Your task to perform on an android device: Go to settings Image 0: 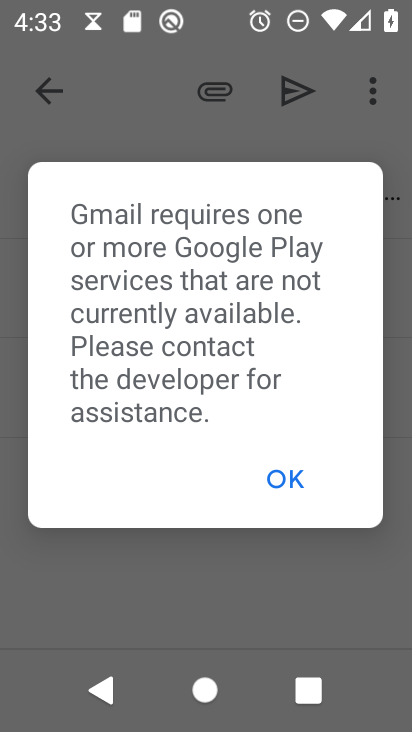
Step 0: press home button
Your task to perform on an android device: Go to settings Image 1: 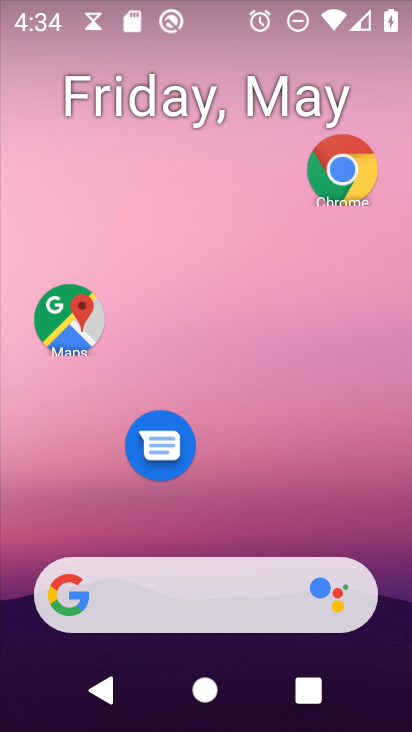
Step 1: drag from (218, 505) to (238, 5)
Your task to perform on an android device: Go to settings Image 2: 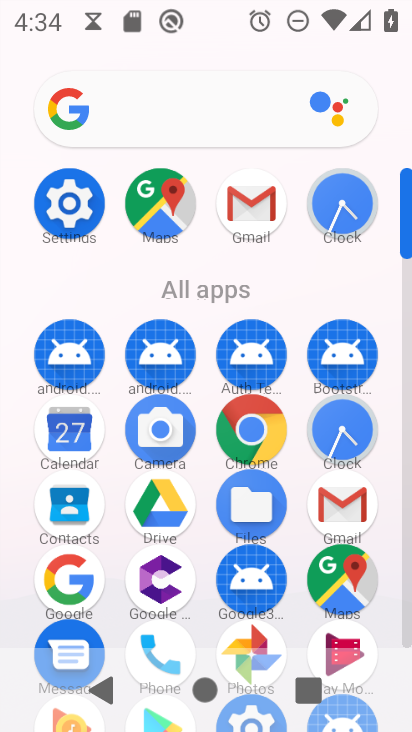
Step 2: click (74, 212)
Your task to perform on an android device: Go to settings Image 3: 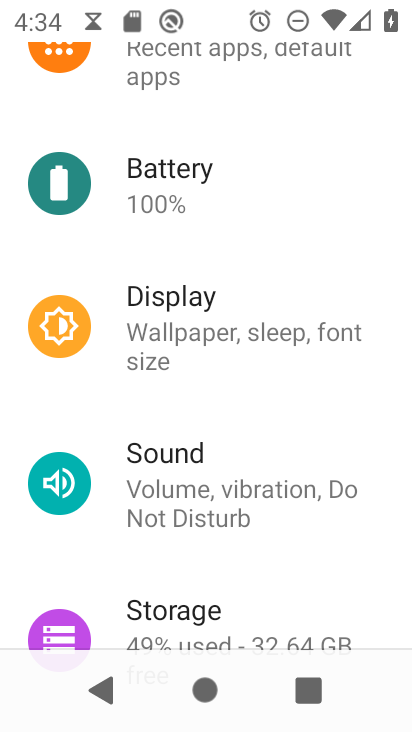
Step 3: task complete